Your task to perform on an android device: allow notifications from all sites in the chrome app Image 0: 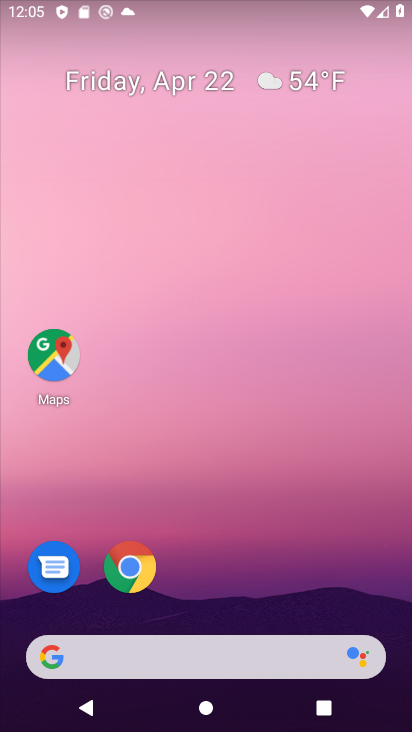
Step 0: drag from (243, 602) to (293, 107)
Your task to perform on an android device: allow notifications from all sites in the chrome app Image 1: 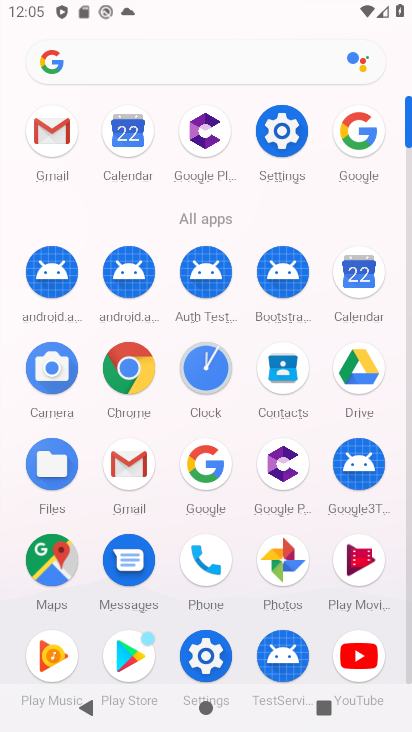
Step 1: click (134, 412)
Your task to perform on an android device: allow notifications from all sites in the chrome app Image 2: 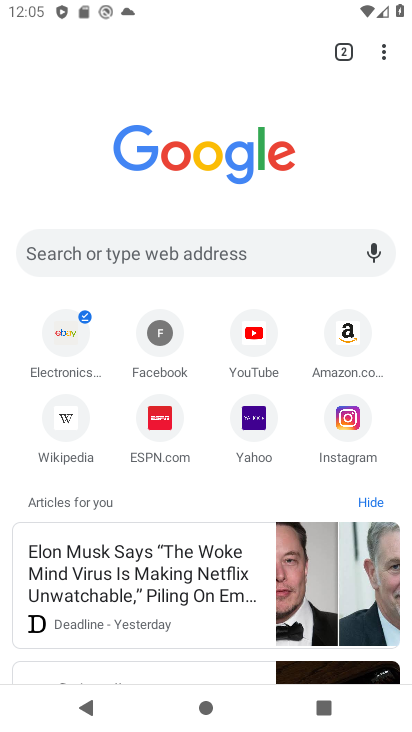
Step 2: click (380, 56)
Your task to perform on an android device: allow notifications from all sites in the chrome app Image 3: 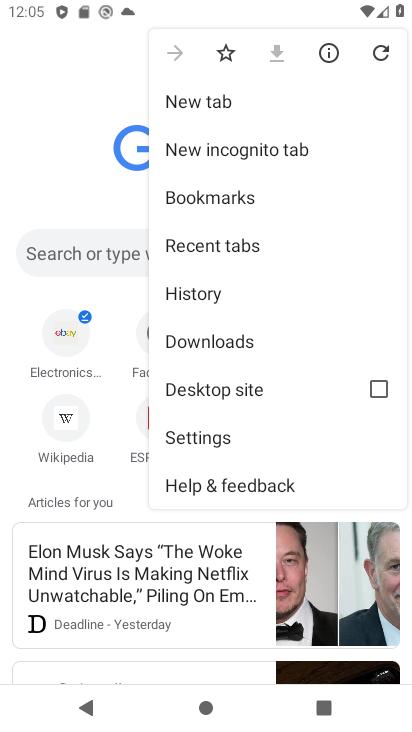
Step 3: click (198, 432)
Your task to perform on an android device: allow notifications from all sites in the chrome app Image 4: 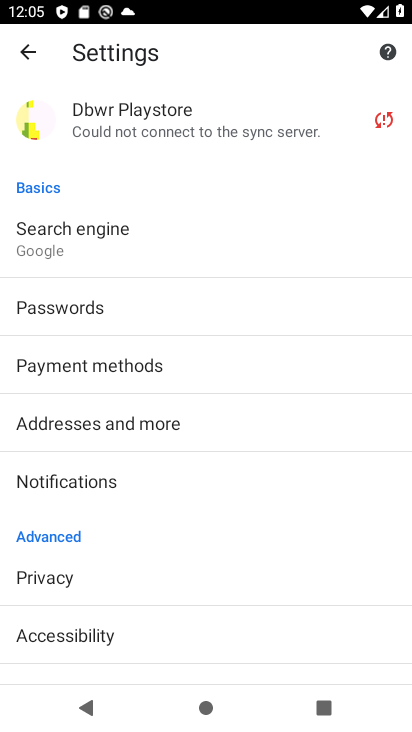
Step 4: click (146, 476)
Your task to perform on an android device: allow notifications from all sites in the chrome app Image 5: 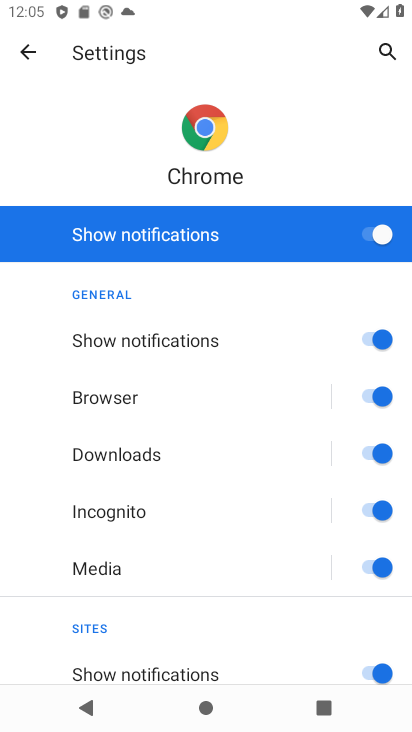
Step 5: task complete